Your task to perform on an android device: clear history in the chrome app Image 0: 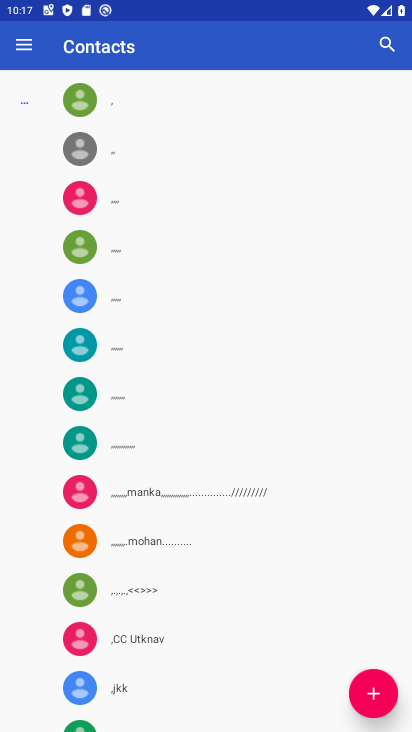
Step 0: press home button
Your task to perform on an android device: clear history in the chrome app Image 1: 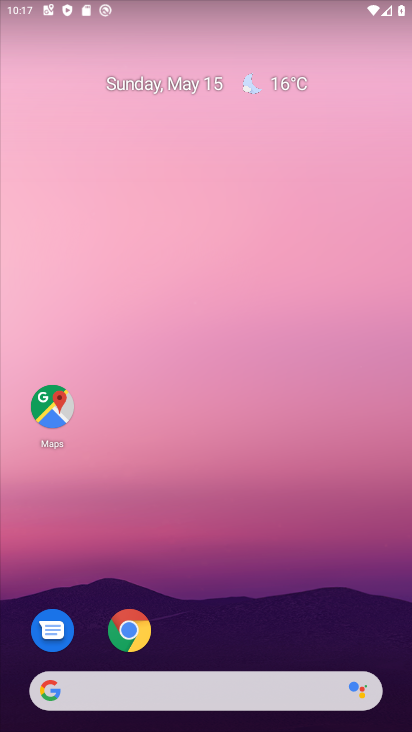
Step 1: click (143, 626)
Your task to perform on an android device: clear history in the chrome app Image 2: 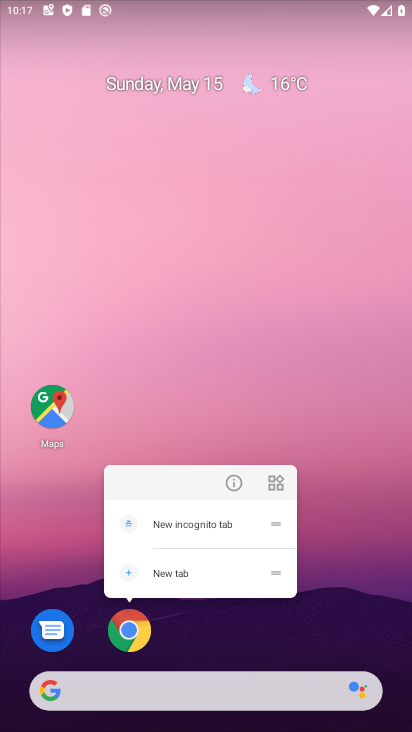
Step 2: click (129, 632)
Your task to perform on an android device: clear history in the chrome app Image 3: 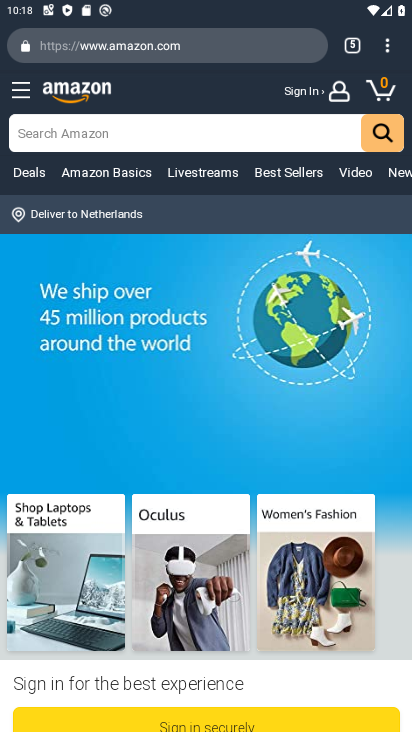
Step 3: drag from (386, 45) to (251, 252)
Your task to perform on an android device: clear history in the chrome app Image 4: 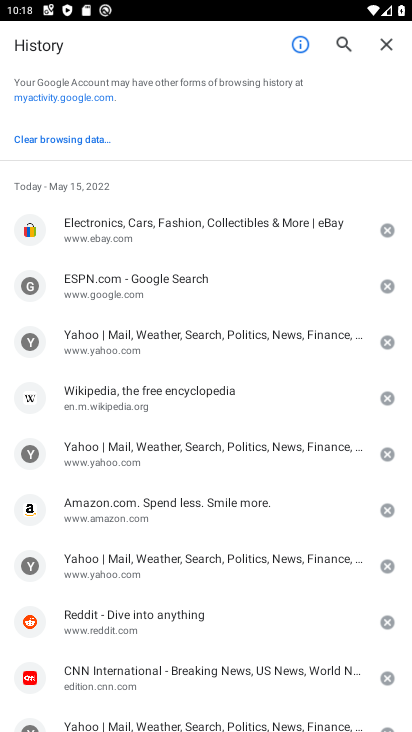
Step 4: click (88, 140)
Your task to perform on an android device: clear history in the chrome app Image 5: 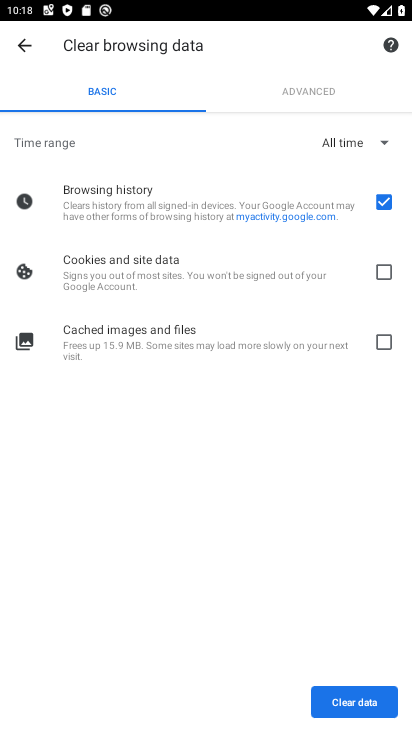
Step 5: click (343, 686)
Your task to perform on an android device: clear history in the chrome app Image 6: 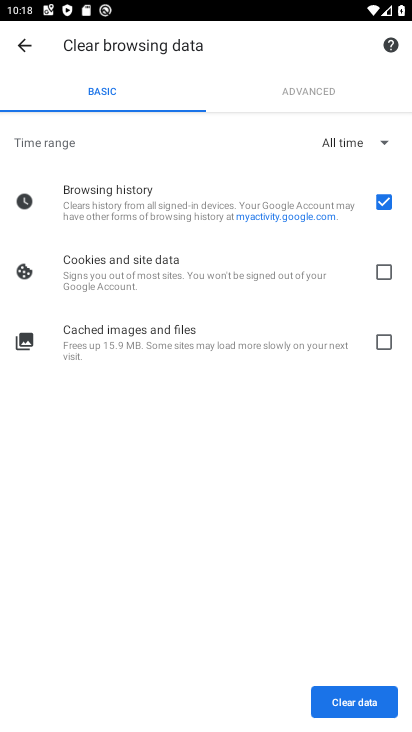
Step 6: click (385, 272)
Your task to perform on an android device: clear history in the chrome app Image 7: 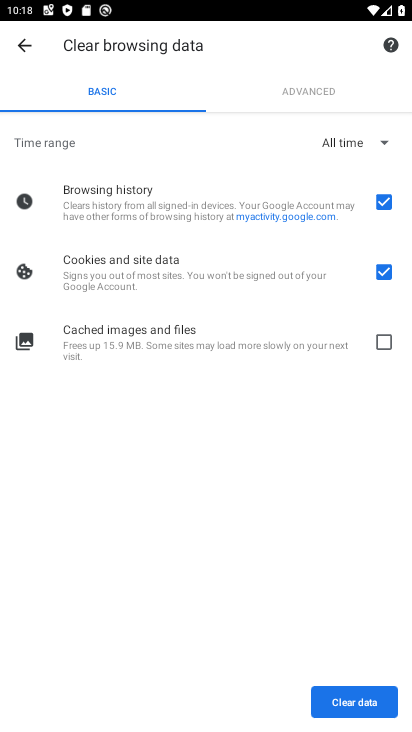
Step 7: click (388, 344)
Your task to perform on an android device: clear history in the chrome app Image 8: 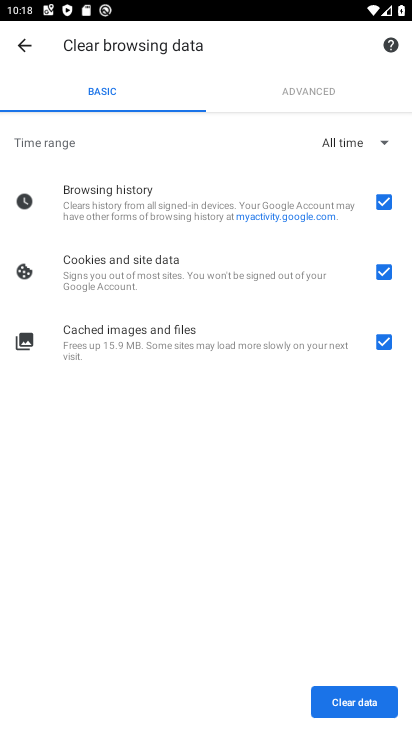
Step 8: click (355, 690)
Your task to perform on an android device: clear history in the chrome app Image 9: 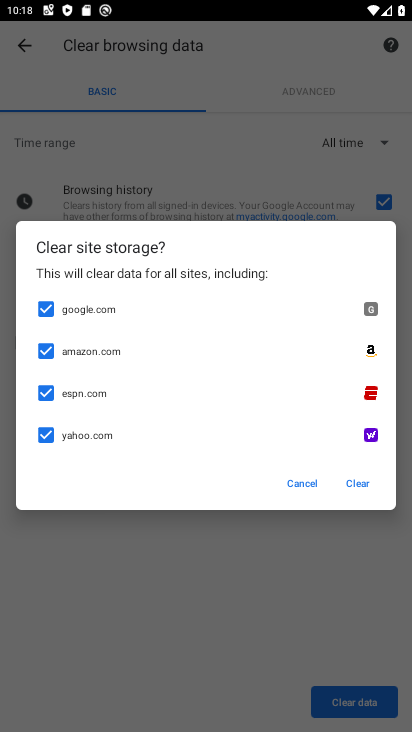
Step 9: click (361, 483)
Your task to perform on an android device: clear history in the chrome app Image 10: 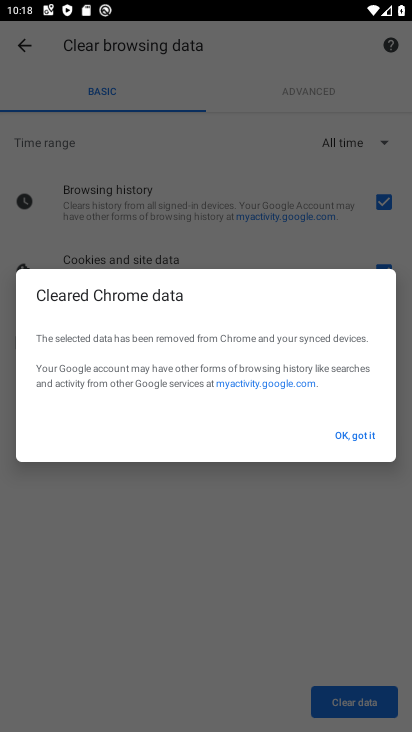
Step 10: click (367, 437)
Your task to perform on an android device: clear history in the chrome app Image 11: 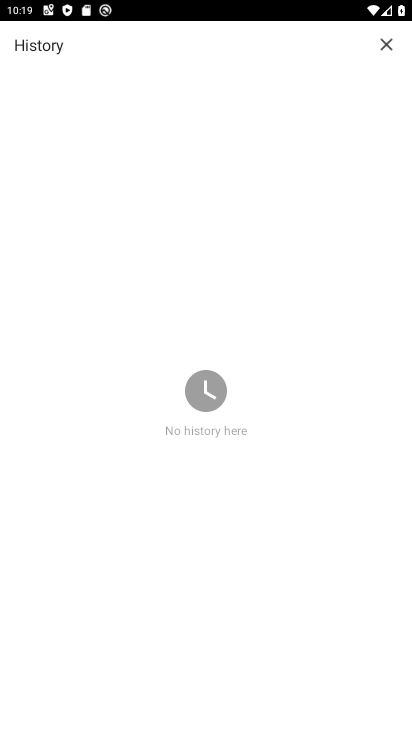
Step 11: task complete